Your task to perform on an android device: toggle priority inbox in the gmail app Image 0: 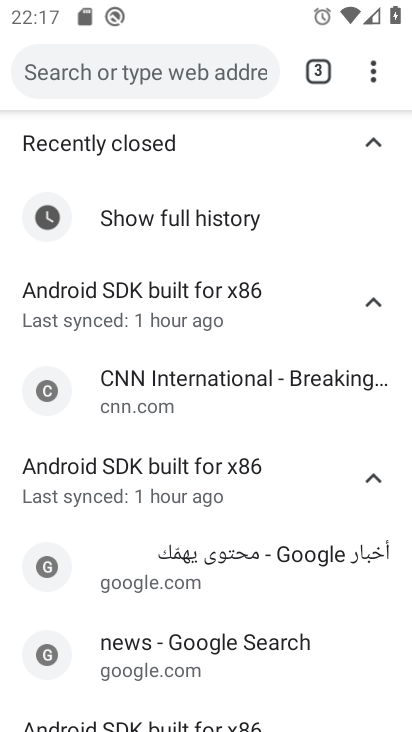
Step 0: press home button
Your task to perform on an android device: toggle priority inbox in the gmail app Image 1: 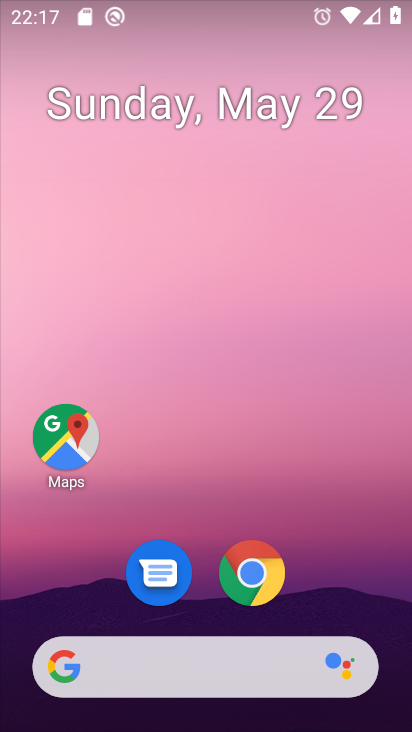
Step 1: drag from (244, 466) to (208, 0)
Your task to perform on an android device: toggle priority inbox in the gmail app Image 2: 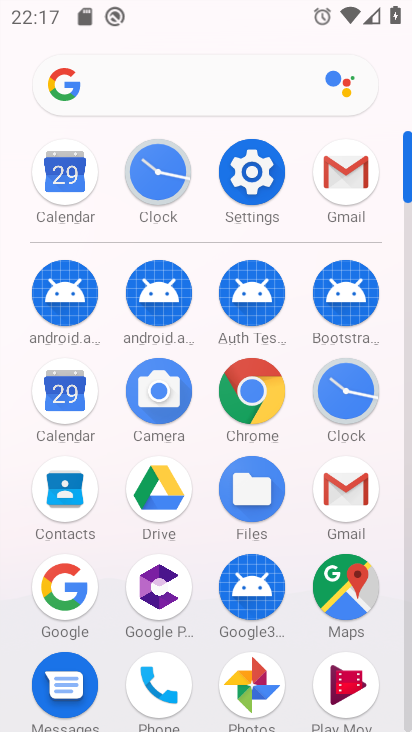
Step 2: click (339, 182)
Your task to perform on an android device: toggle priority inbox in the gmail app Image 3: 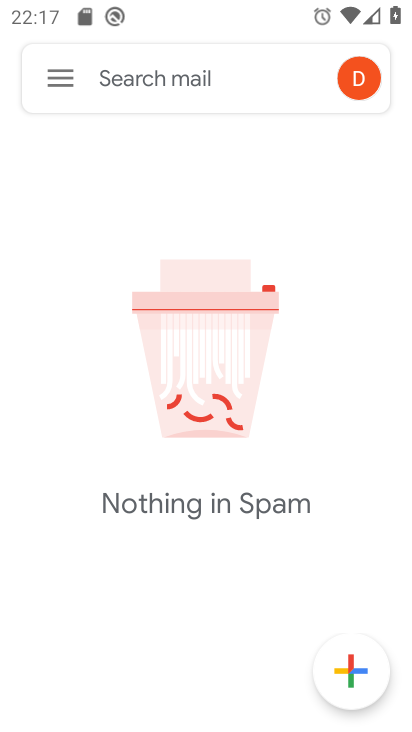
Step 3: click (60, 82)
Your task to perform on an android device: toggle priority inbox in the gmail app Image 4: 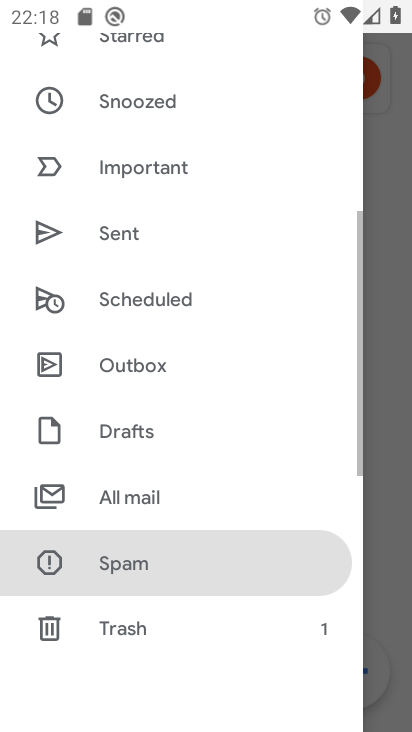
Step 4: drag from (177, 463) to (211, 8)
Your task to perform on an android device: toggle priority inbox in the gmail app Image 5: 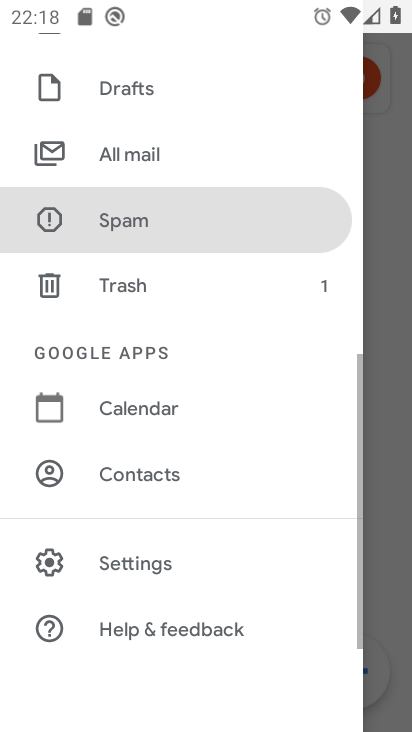
Step 5: click (190, 552)
Your task to perform on an android device: toggle priority inbox in the gmail app Image 6: 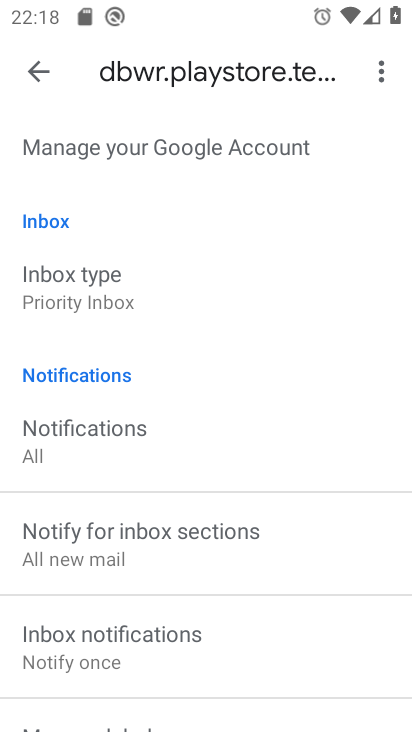
Step 6: click (117, 285)
Your task to perform on an android device: toggle priority inbox in the gmail app Image 7: 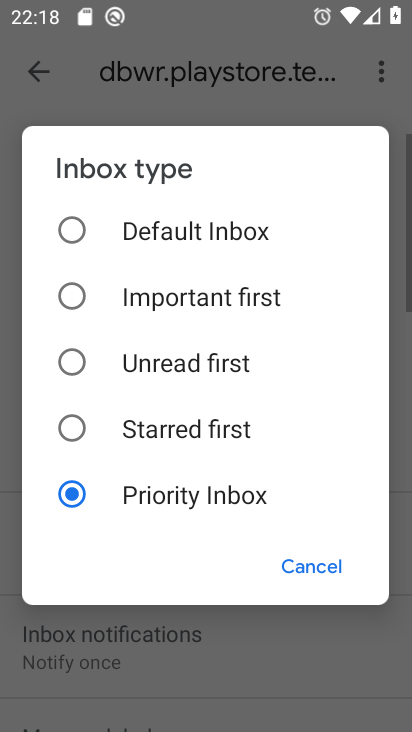
Step 7: click (109, 231)
Your task to perform on an android device: toggle priority inbox in the gmail app Image 8: 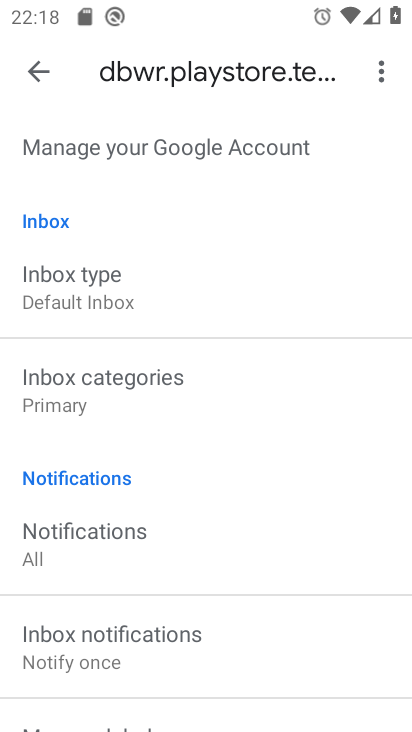
Step 8: task complete